Your task to perform on an android device: create a new album in the google photos Image 0: 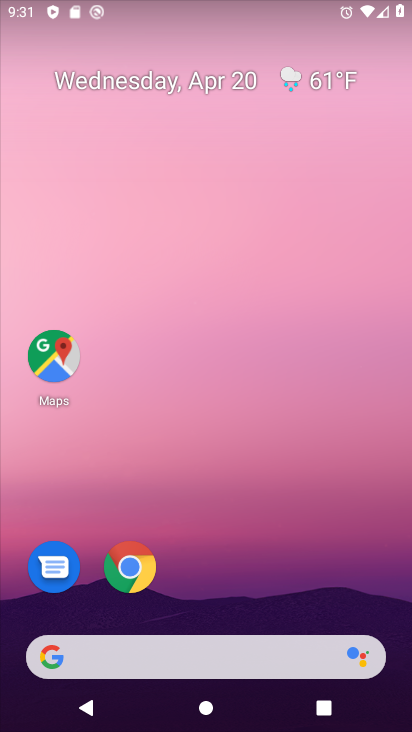
Step 0: drag from (203, 589) to (177, 158)
Your task to perform on an android device: create a new album in the google photos Image 1: 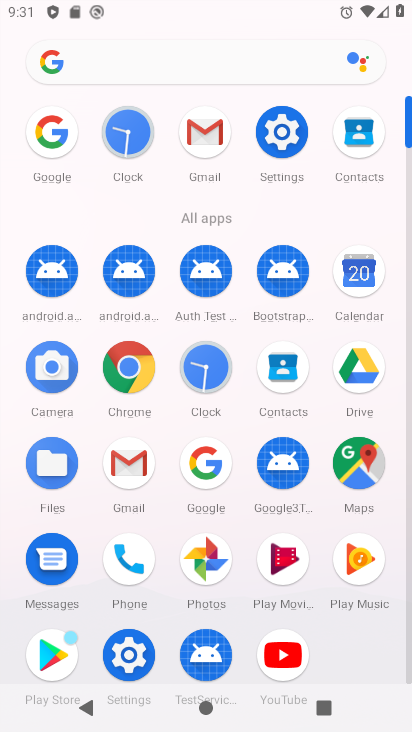
Step 1: click (210, 554)
Your task to perform on an android device: create a new album in the google photos Image 2: 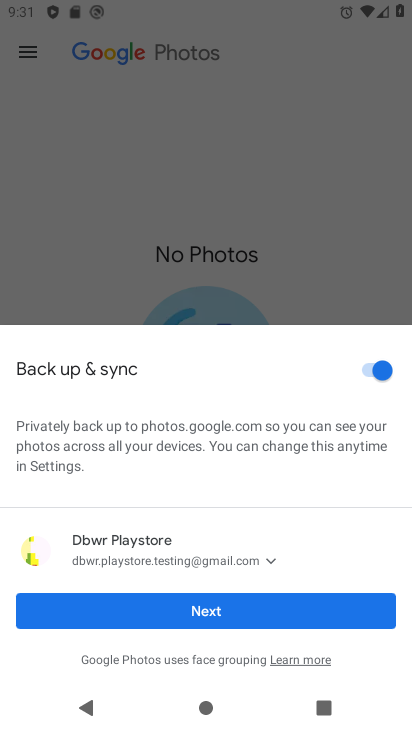
Step 2: click (216, 596)
Your task to perform on an android device: create a new album in the google photos Image 3: 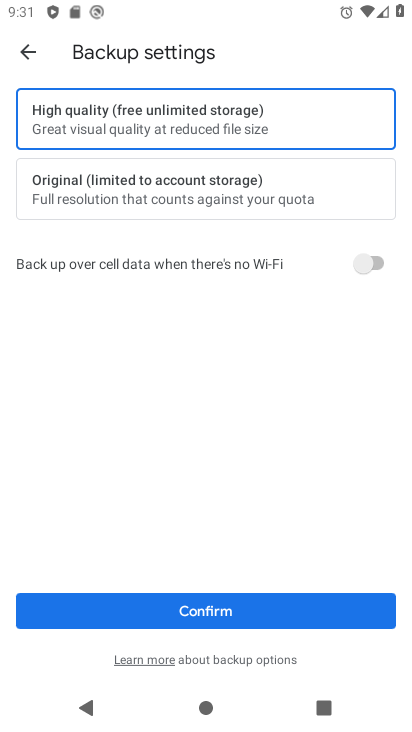
Step 3: click (266, 609)
Your task to perform on an android device: create a new album in the google photos Image 4: 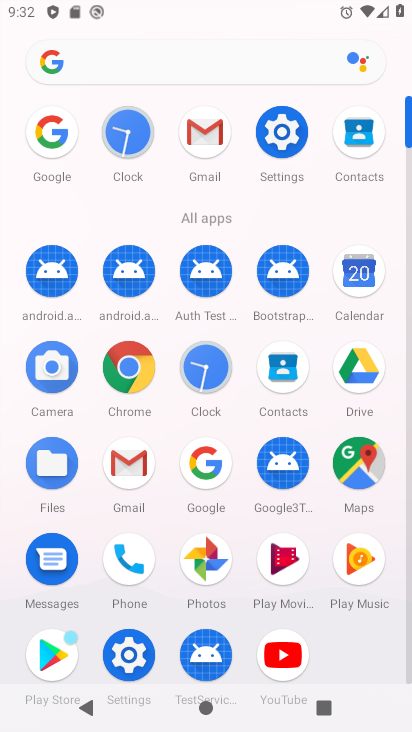
Step 4: click (218, 551)
Your task to perform on an android device: create a new album in the google photos Image 5: 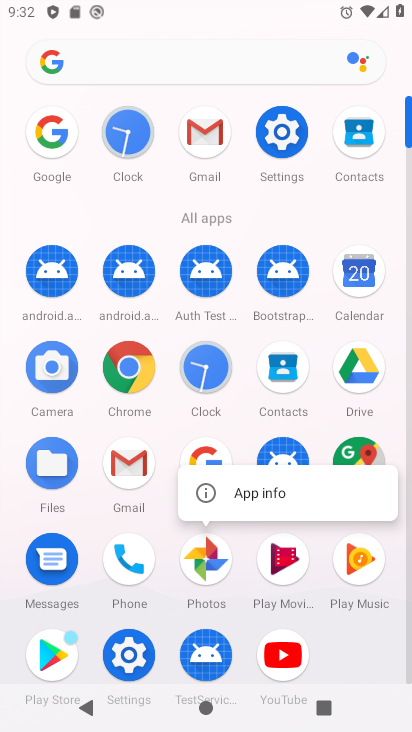
Step 5: click (220, 551)
Your task to perform on an android device: create a new album in the google photos Image 6: 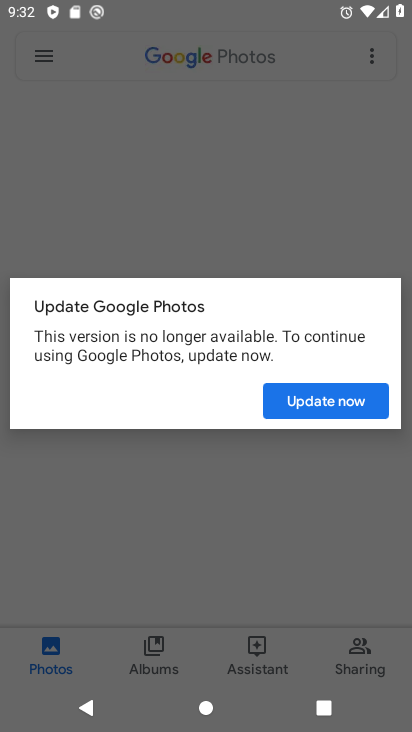
Step 6: click (315, 405)
Your task to perform on an android device: create a new album in the google photos Image 7: 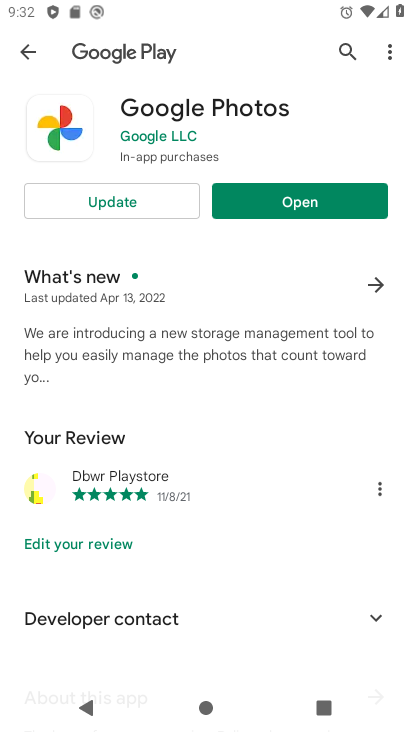
Step 7: click (296, 193)
Your task to perform on an android device: create a new album in the google photos Image 8: 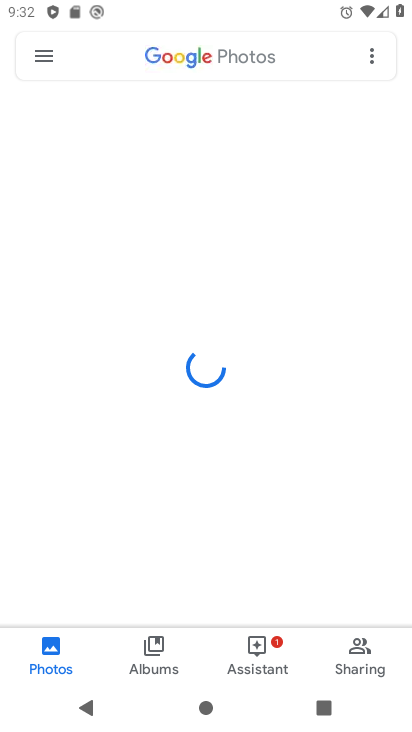
Step 8: click (161, 639)
Your task to perform on an android device: create a new album in the google photos Image 9: 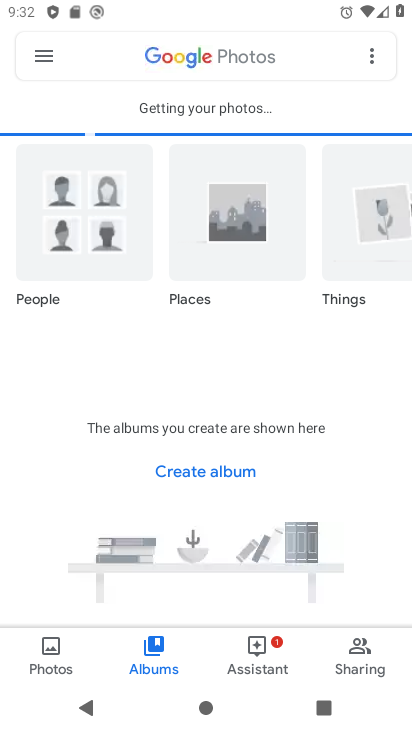
Step 9: click (373, 46)
Your task to perform on an android device: create a new album in the google photos Image 10: 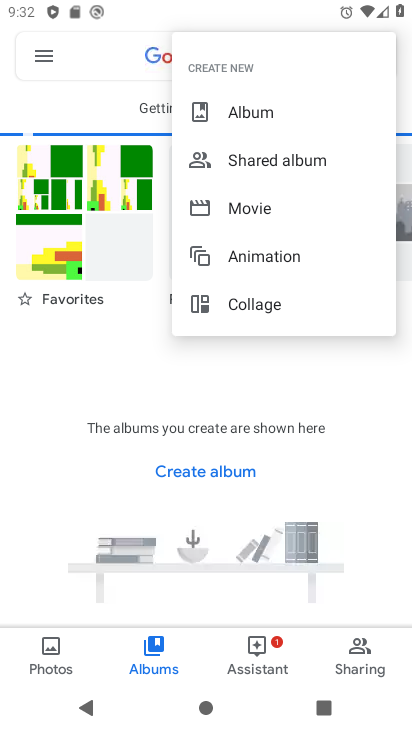
Step 10: click (238, 119)
Your task to perform on an android device: create a new album in the google photos Image 11: 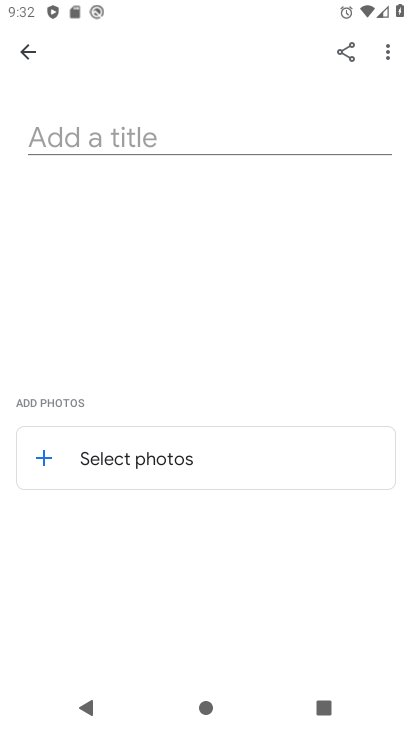
Step 11: click (121, 138)
Your task to perform on an android device: create a new album in the google photos Image 12: 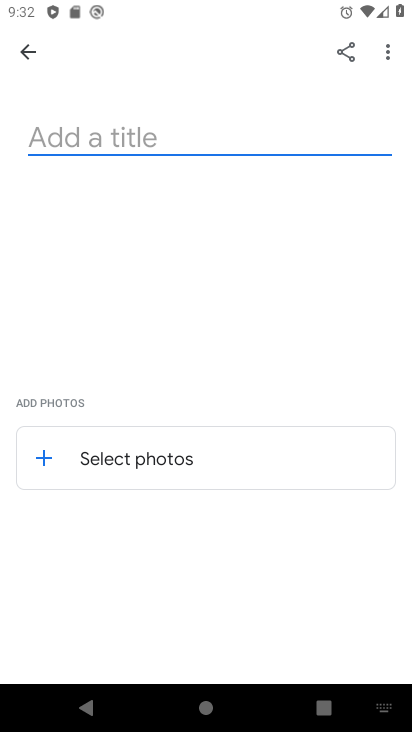
Step 12: type "dfvdfv"
Your task to perform on an android device: create a new album in the google photos Image 13: 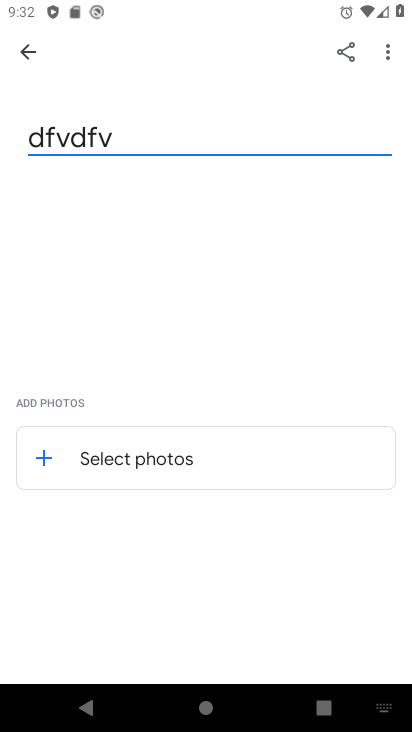
Step 13: click (40, 447)
Your task to perform on an android device: create a new album in the google photos Image 14: 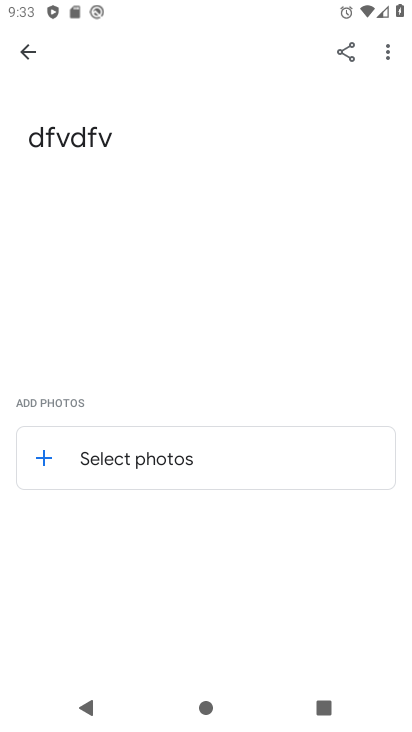
Step 14: click (47, 454)
Your task to perform on an android device: create a new album in the google photos Image 15: 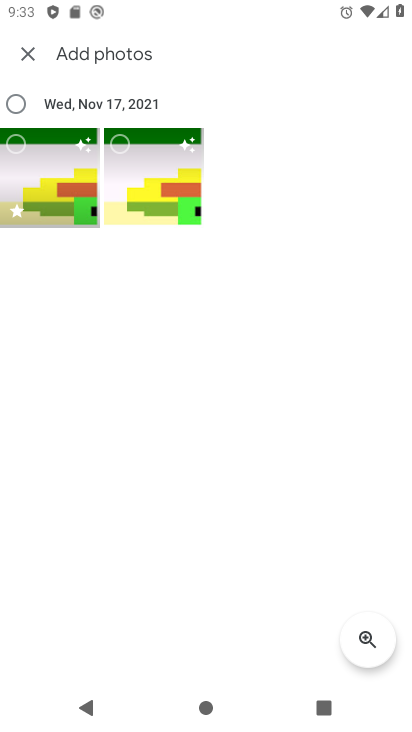
Step 15: click (41, 183)
Your task to perform on an android device: create a new album in the google photos Image 16: 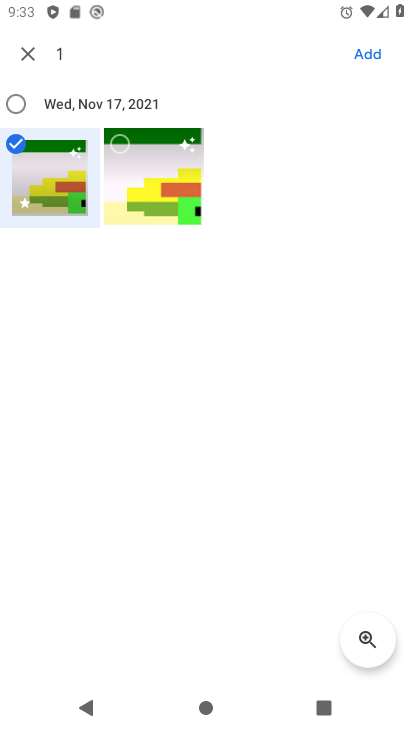
Step 16: click (372, 49)
Your task to perform on an android device: create a new album in the google photos Image 17: 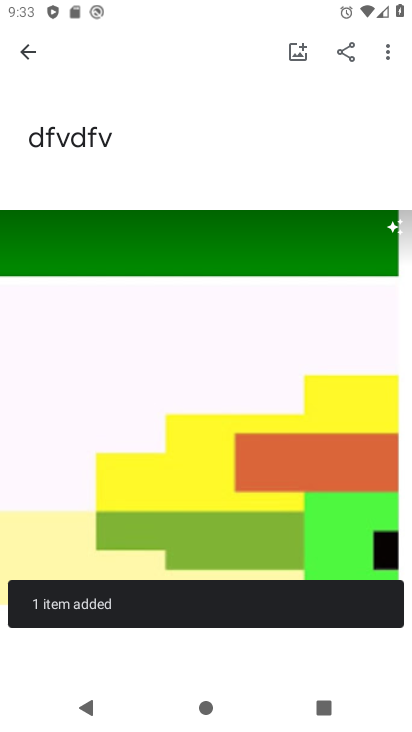
Step 17: task complete